Your task to perform on an android device: change alarm snooze length Image 0: 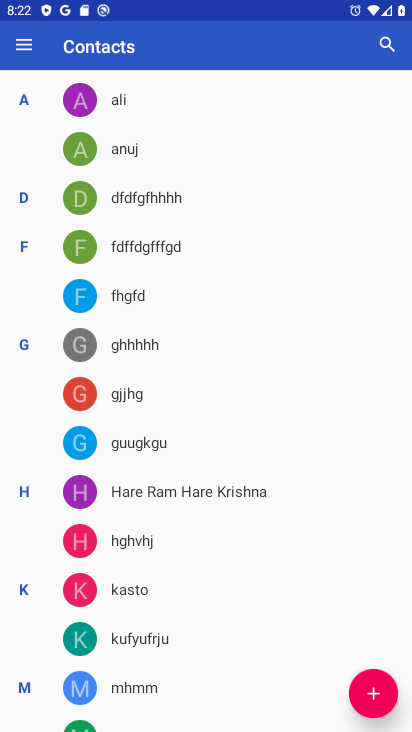
Step 0: press home button
Your task to perform on an android device: change alarm snooze length Image 1: 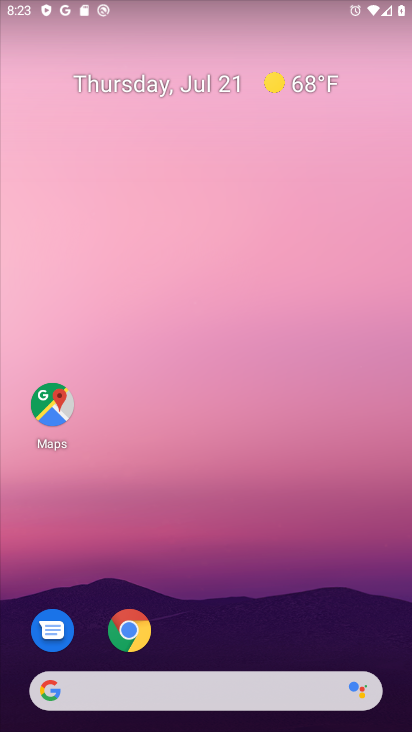
Step 1: drag from (327, 379) to (386, 26)
Your task to perform on an android device: change alarm snooze length Image 2: 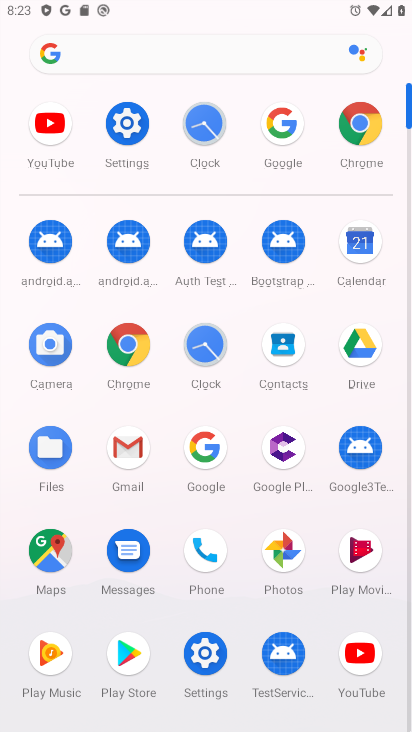
Step 2: click (198, 348)
Your task to perform on an android device: change alarm snooze length Image 3: 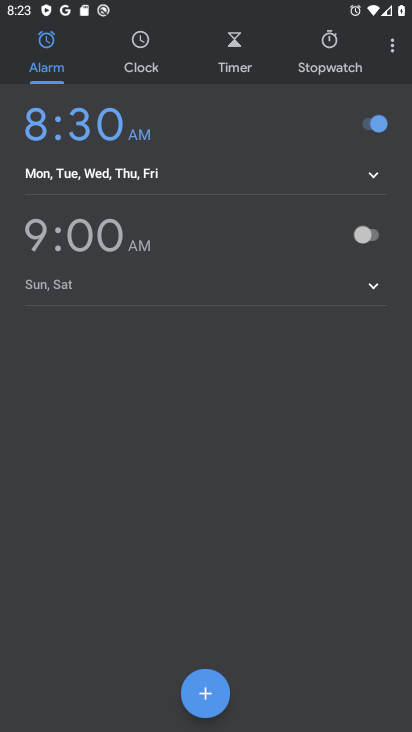
Step 3: click (397, 47)
Your task to perform on an android device: change alarm snooze length Image 4: 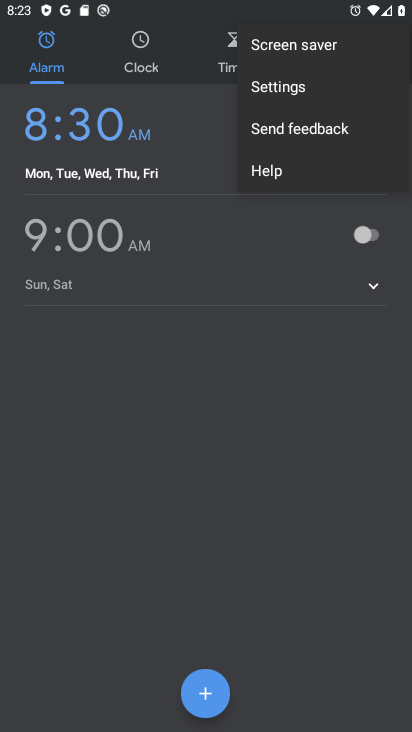
Step 4: click (270, 93)
Your task to perform on an android device: change alarm snooze length Image 5: 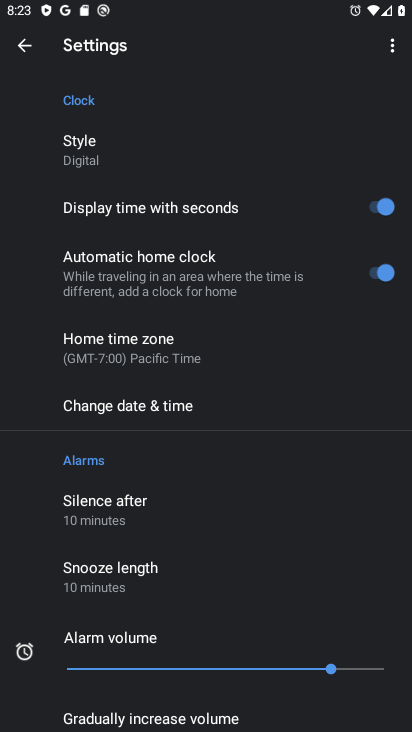
Step 5: click (136, 572)
Your task to perform on an android device: change alarm snooze length Image 6: 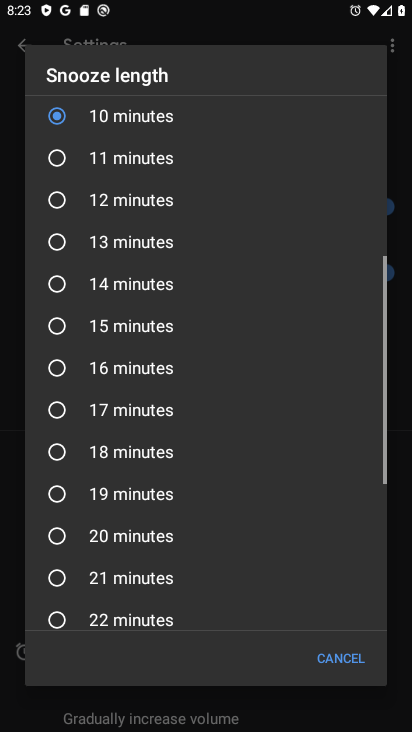
Step 6: click (114, 393)
Your task to perform on an android device: change alarm snooze length Image 7: 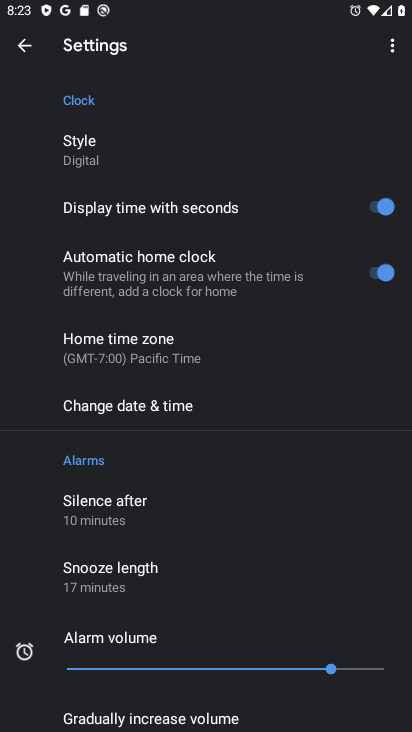
Step 7: task complete